Your task to perform on an android device: add a contact in the contacts app Image 0: 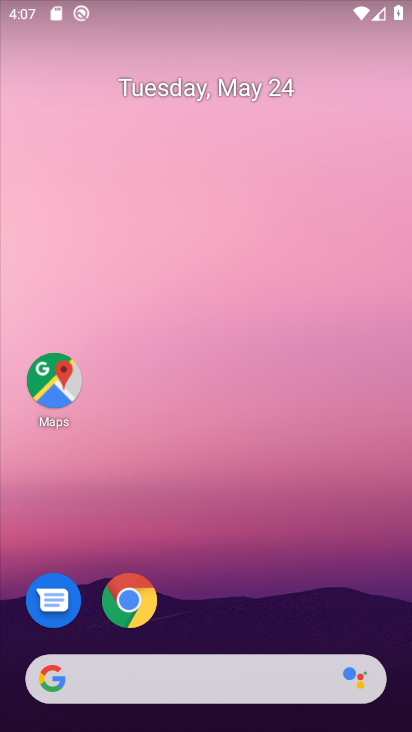
Step 0: drag from (211, 651) to (380, 5)
Your task to perform on an android device: add a contact in the contacts app Image 1: 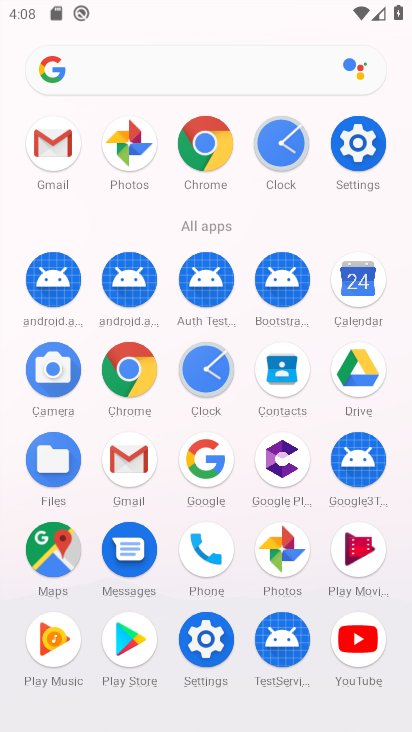
Step 1: click (283, 386)
Your task to perform on an android device: add a contact in the contacts app Image 2: 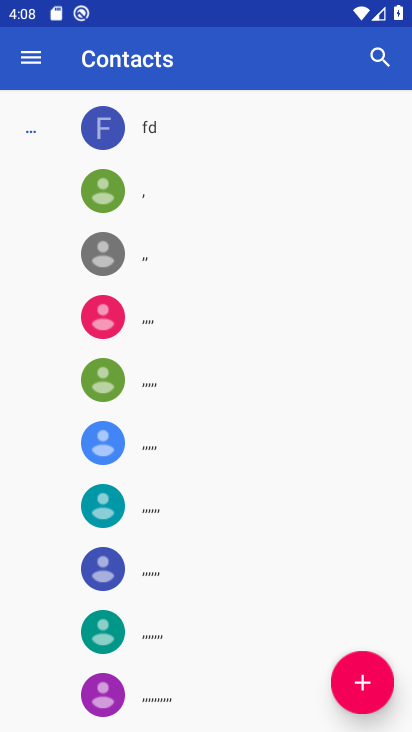
Step 2: click (350, 671)
Your task to perform on an android device: add a contact in the contacts app Image 3: 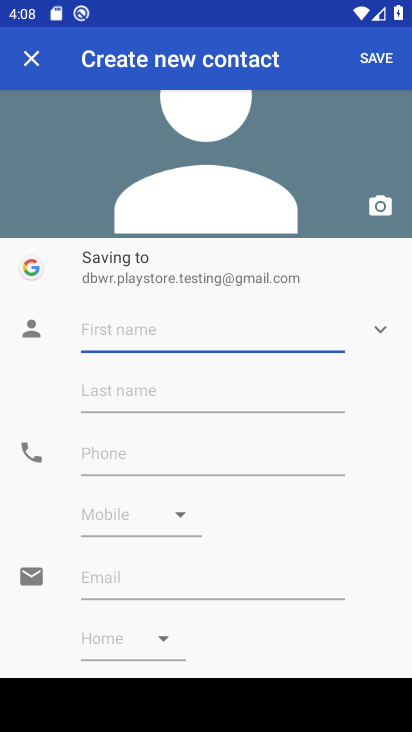
Step 3: type "gdhfffjm"
Your task to perform on an android device: add a contact in the contacts app Image 4: 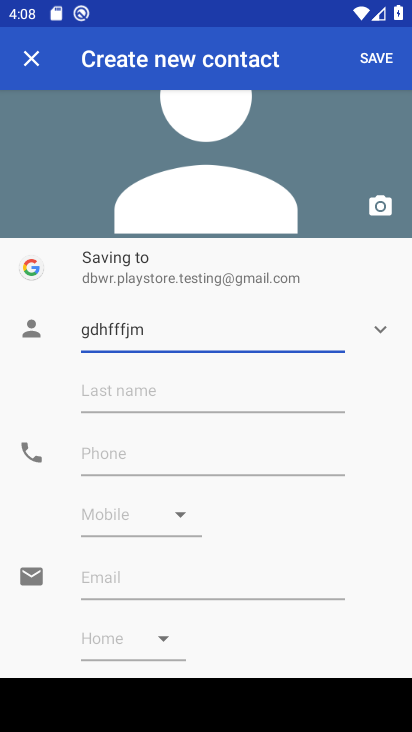
Step 4: click (157, 454)
Your task to perform on an android device: add a contact in the contacts app Image 5: 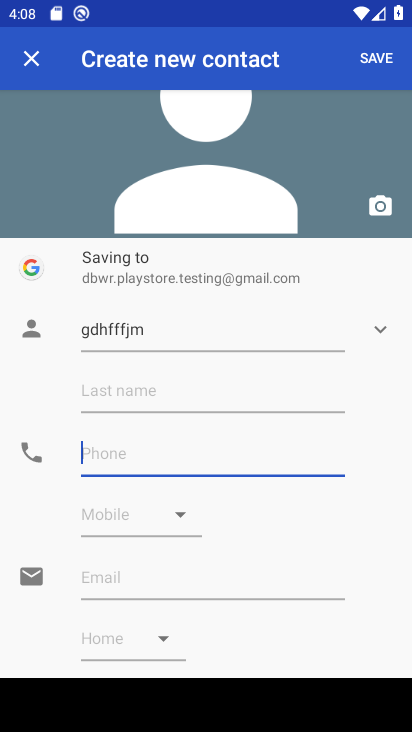
Step 5: type "98776667888"
Your task to perform on an android device: add a contact in the contacts app Image 6: 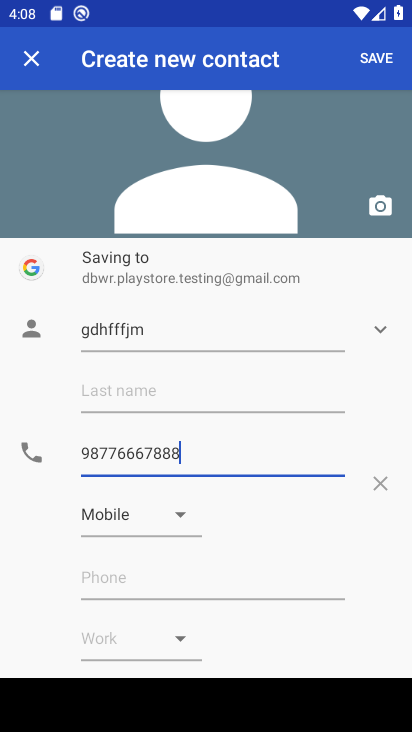
Step 6: click (384, 55)
Your task to perform on an android device: add a contact in the contacts app Image 7: 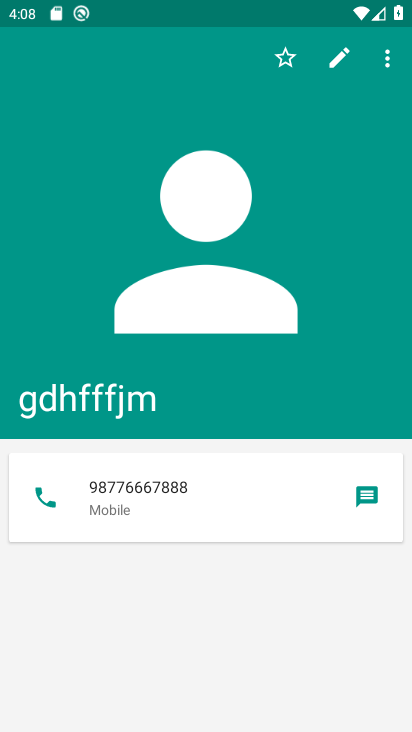
Step 7: task complete